Your task to perform on an android device: Open my contact list Image 0: 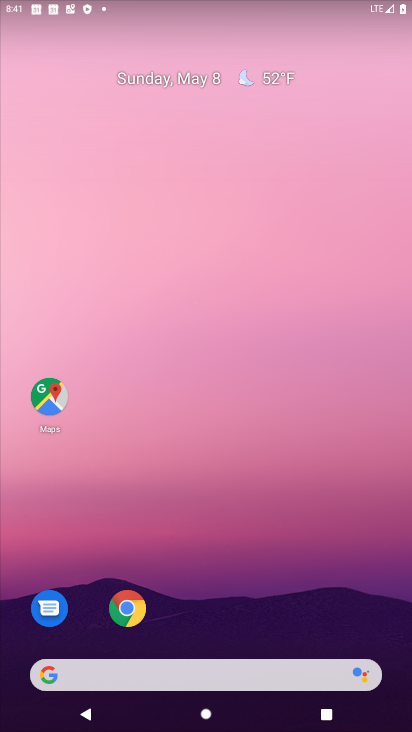
Step 0: drag from (317, 616) to (259, 20)
Your task to perform on an android device: Open my contact list Image 1: 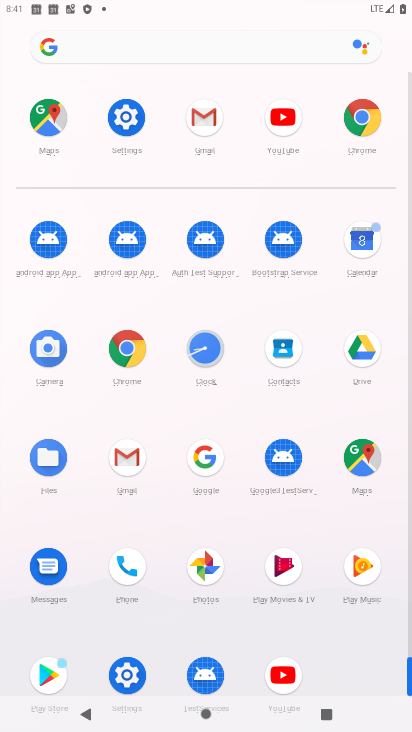
Step 1: click (285, 344)
Your task to perform on an android device: Open my contact list Image 2: 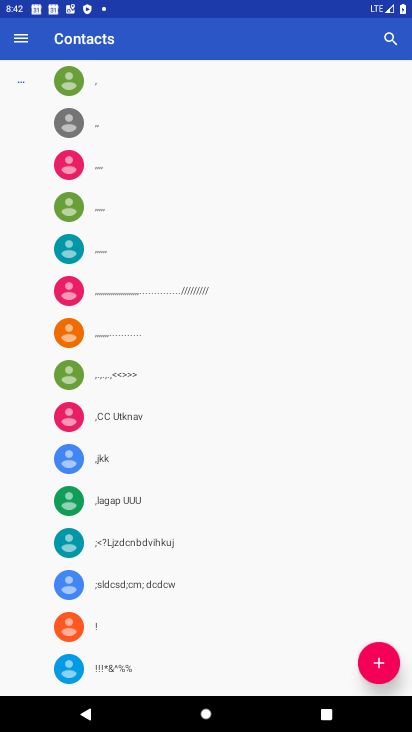
Step 2: task complete